Your task to perform on an android device: set the timer Image 0: 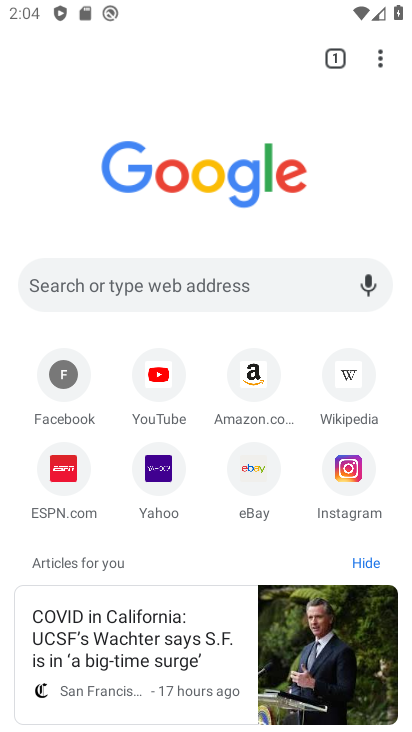
Step 0: press home button
Your task to perform on an android device: set the timer Image 1: 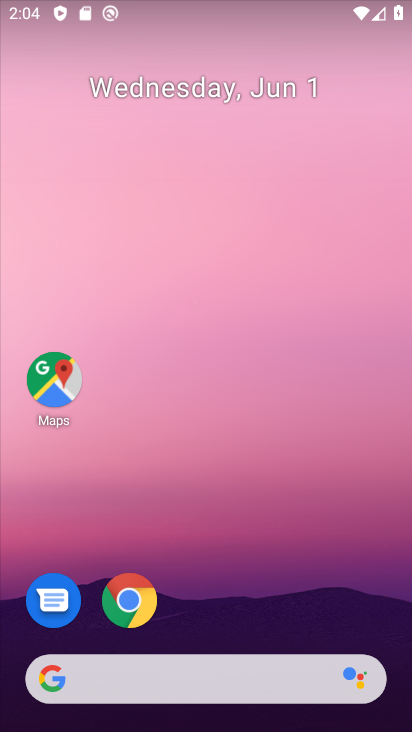
Step 1: drag from (252, 620) to (247, 134)
Your task to perform on an android device: set the timer Image 2: 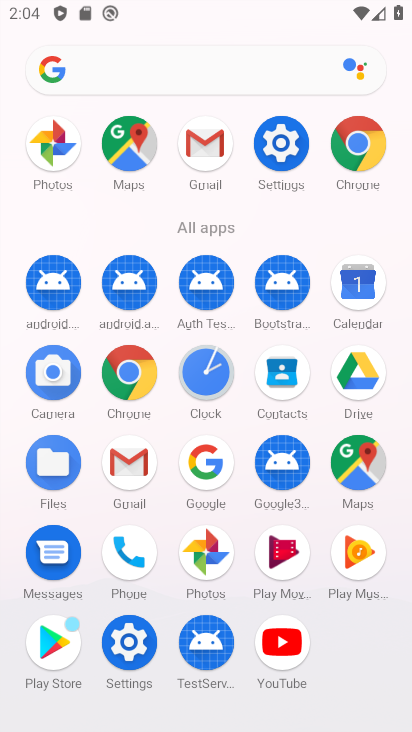
Step 2: click (190, 362)
Your task to perform on an android device: set the timer Image 3: 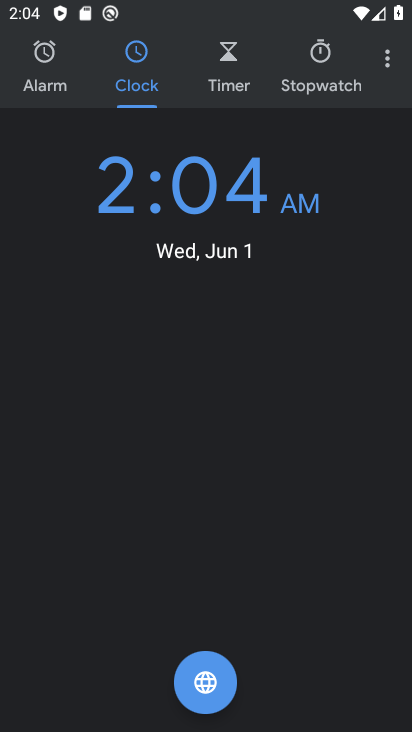
Step 3: click (207, 76)
Your task to perform on an android device: set the timer Image 4: 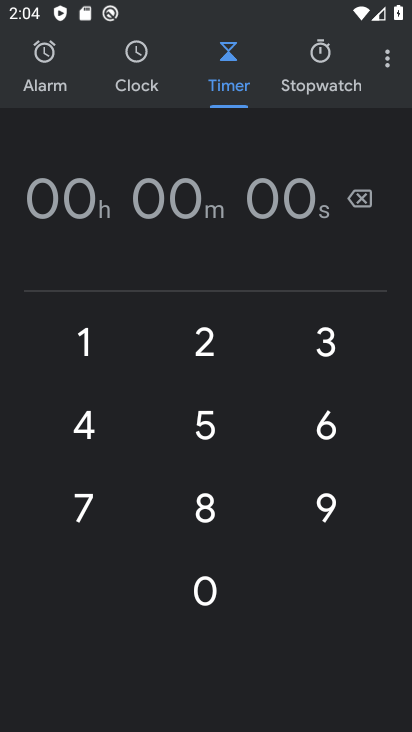
Step 4: type "10000"
Your task to perform on an android device: set the timer Image 5: 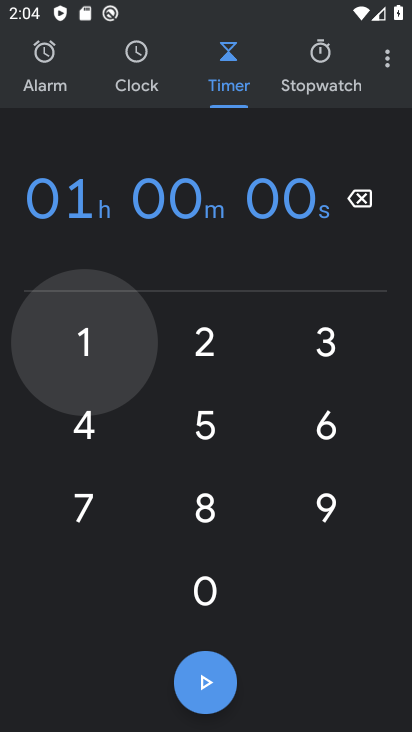
Step 5: type "0"
Your task to perform on an android device: set the timer Image 6: 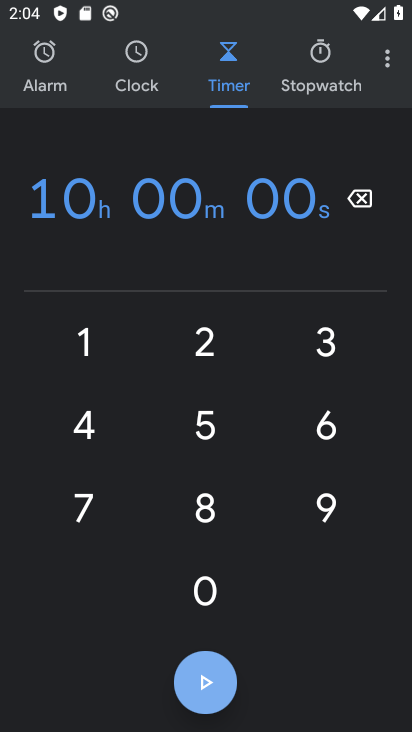
Step 6: click (217, 679)
Your task to perform on an android device: set the timer Image 7: 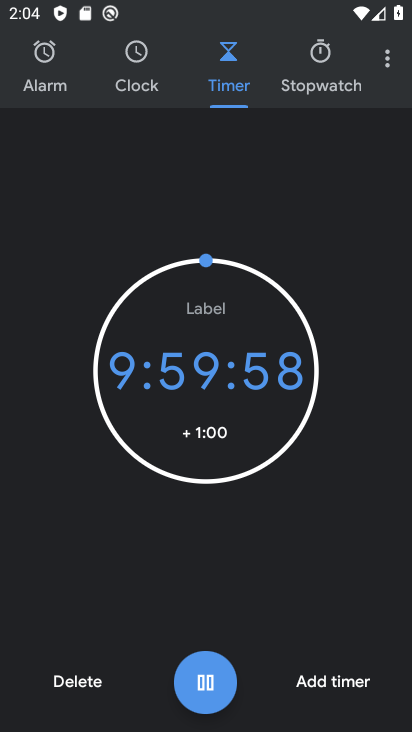
Step 7: task complete